Your task to perform on an android device: Search for seafood restaurants on Google Maps Image 0: 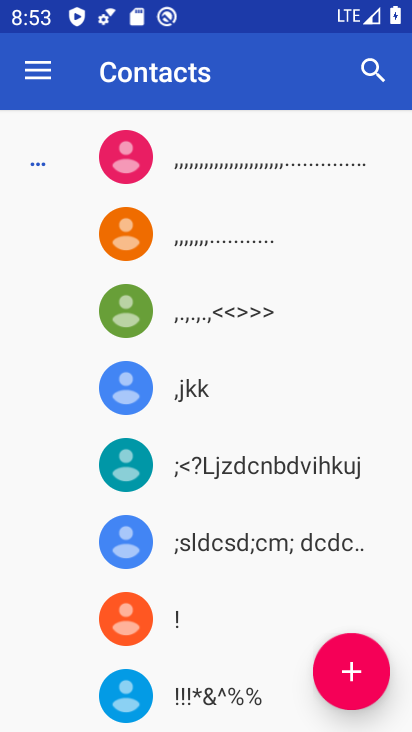
Step 0: press home button
Your task to perform on an android device: Search for seafood restaurants on Google Maps Image 1: 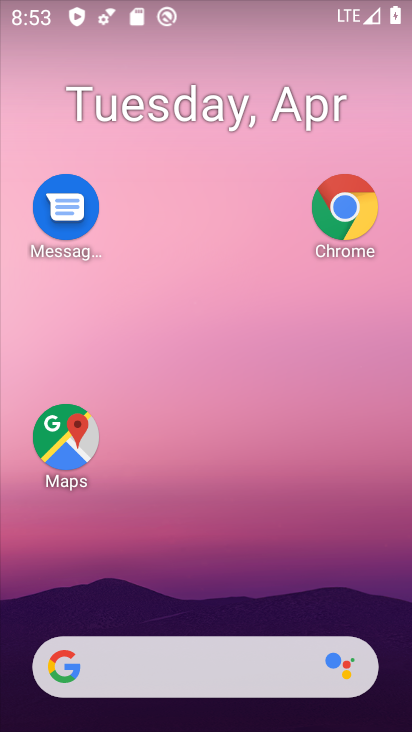
Step 1: drag from (191, 631) to (289, 2)
Your task to perform on an android device: Search for seafood restaurants on Google Maps Image 2: 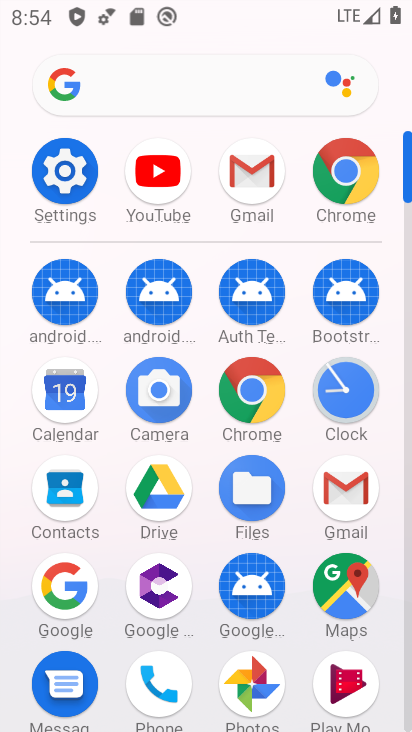
Step 2: click (340, 605)
Your task to perform on an android device: Search for seafood restaurants on Google Maps Image 3: 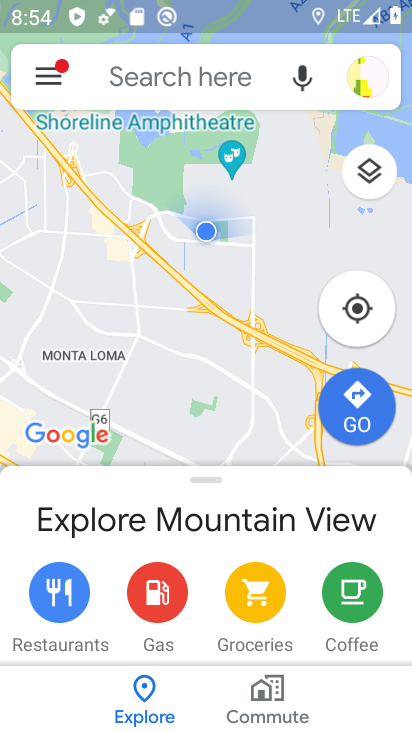
Step 3: click (169, 88)
Your task to perform on an android device: Search for seafood restaurants on Google Maps Image 4: 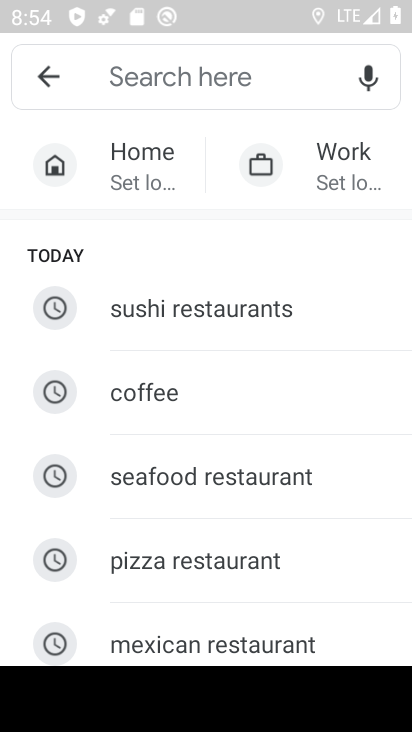
Step 4: click (201, 482)
Your task to perform on an android device: Search for seafood restaurants on Google Maps Image 5: 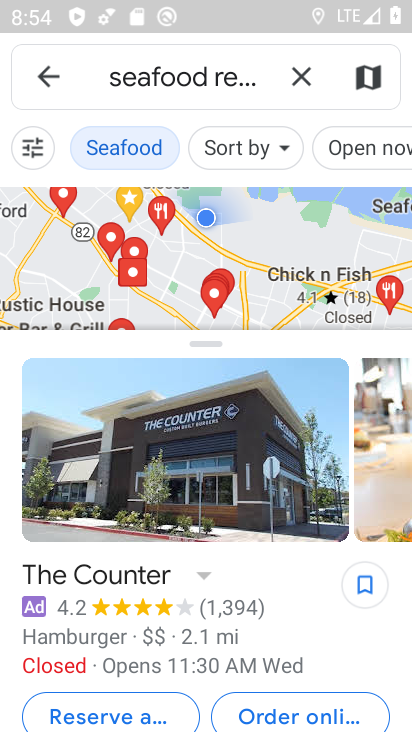
Step 5: task complete